Your task to perform on an android device: Go to sound settings Image 0: 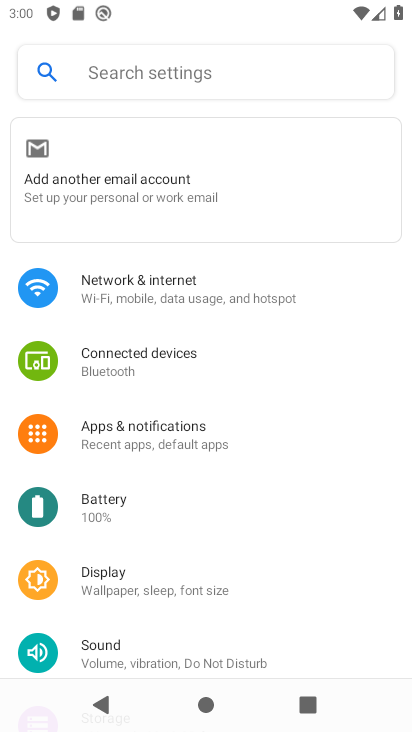
Step 0: drag from (167, 624) to (230, 247)
Your task to perform on an android device: Go to sound settings Image 1: 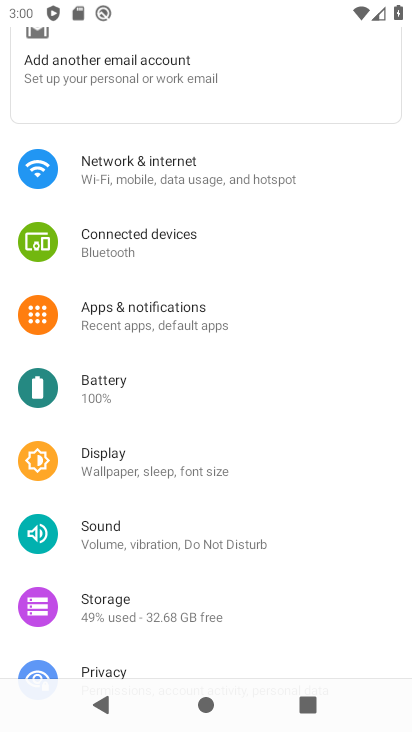
Step 1: click (145, 525)
Your task to perform on an android device: Go to sound settings Image 2: 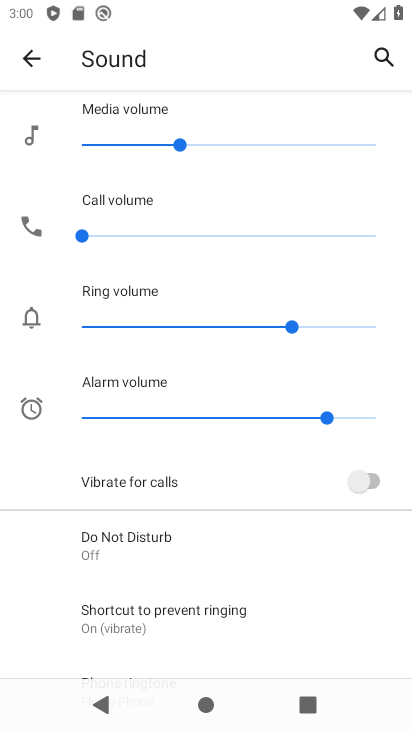
Step 2: task complete